Your task to perform on an android device: Search for a nightstand on IKEA. Image 0: 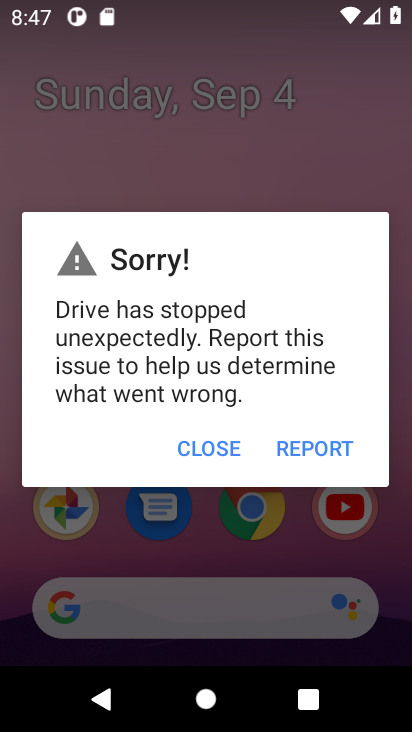
Step 0: click (203, 443)
Your task to perform on an android device: Search for a nightstand on IKEA. Image 1: 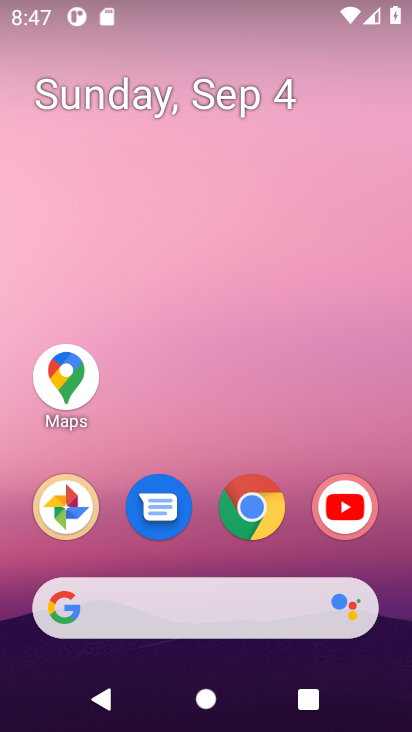
Step 1: click (255, 512)
Your task to perform on an android device: Search for a nightstand on IKEA. Image 2: 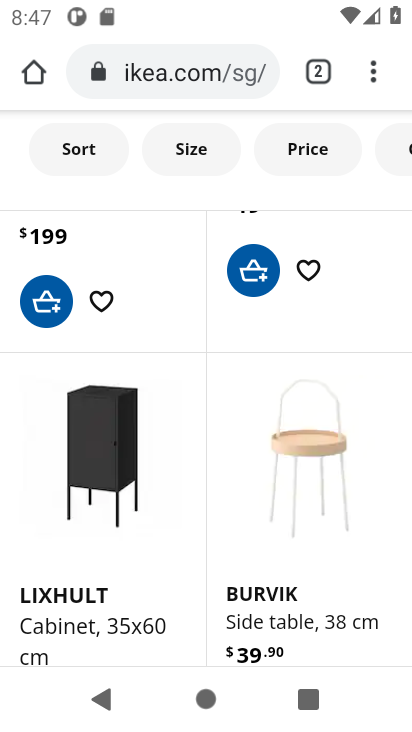
Step 2: click (170, 51)
Your task to perform on an android device: Search for a nightstand on IKEA. Image 3: 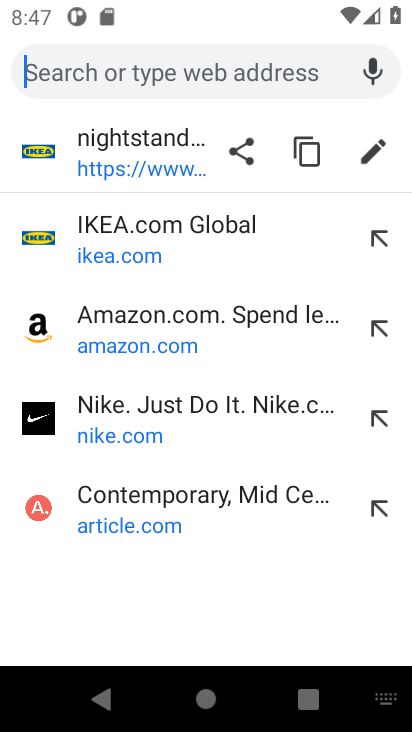
Step 3: type "IKEA."
Your task to perform on an android device: Search for a nightstand on IKEA. Image 4: 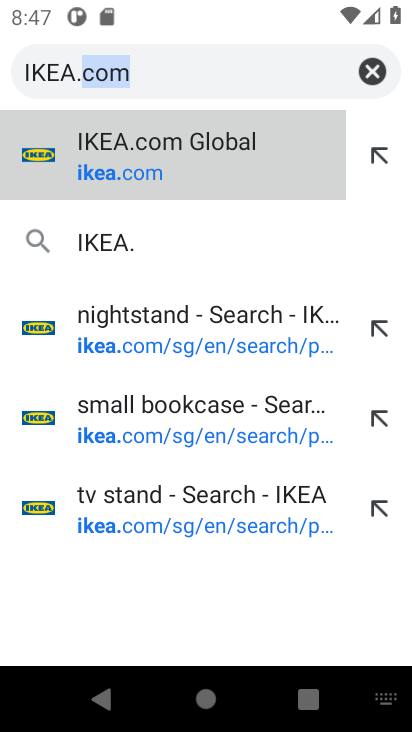
Step 4: click (104, 159)
Your task to perform on an android device: Search for a nightstand on IKEA. Image 5: 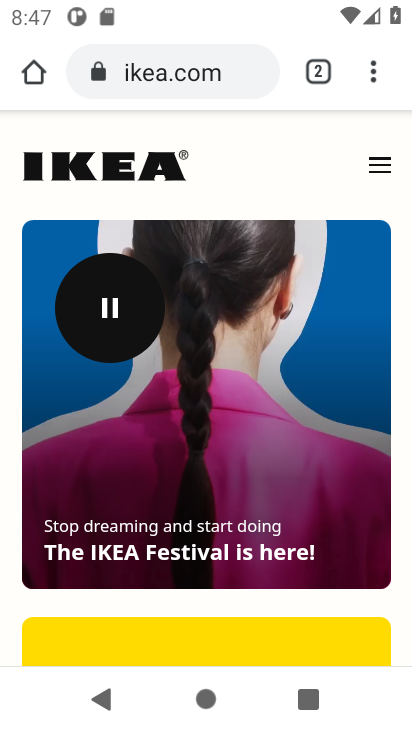
Step 5: drag from (233, 592) to (241, 166)
Your task to perform on an android device: Search for a nightstand on IKEA. Image 6: 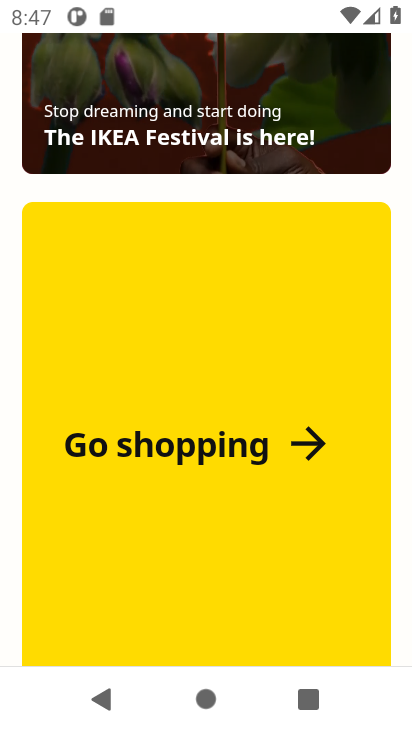
Step 6: click (190, 447)
Your task to perform on an android device: Search for a nightstand on IKEA. Image 7: 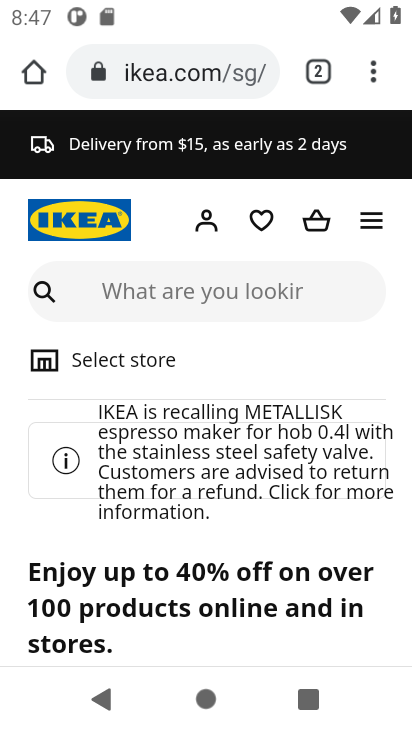
Step 7: click (178, 285)
Your task to perform on an android device: Search for a nightstand on IKEA. Image 8: 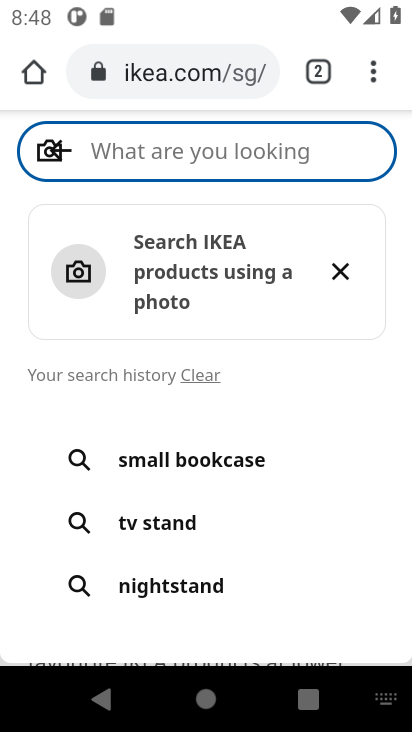
Step 8: type "nightstand"
Your task to perform on an android device: Search for a nightstand on IKEA. Image 9: 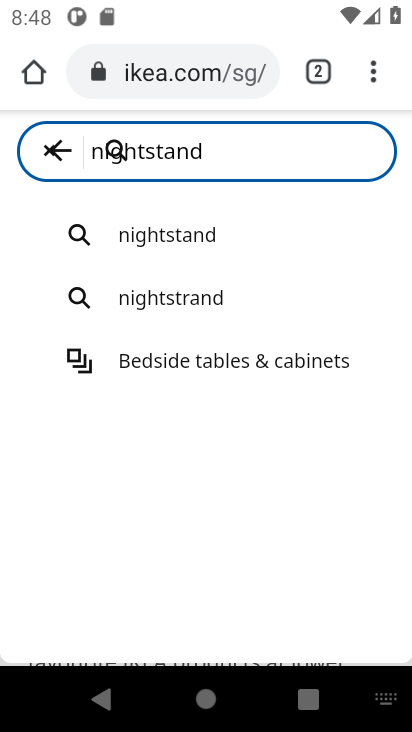
Step 9: click (158, 228)
Your task to perform on an android device: Search for a nightstand on IKEA. Image 10: 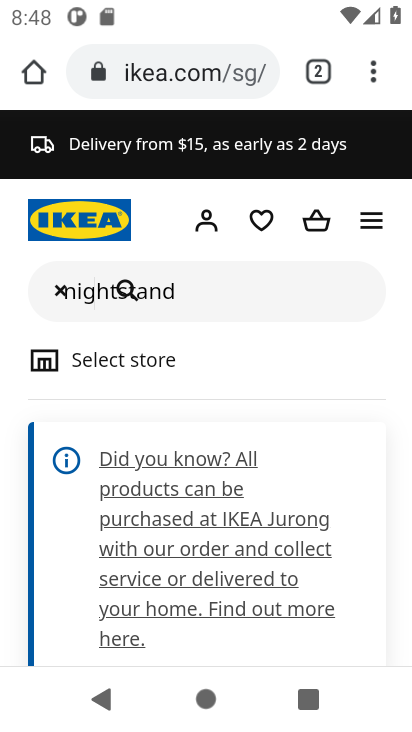
Step 10: task complete